Your task to perform on an android device: turn on notifications settings in the gmail app Image 0: 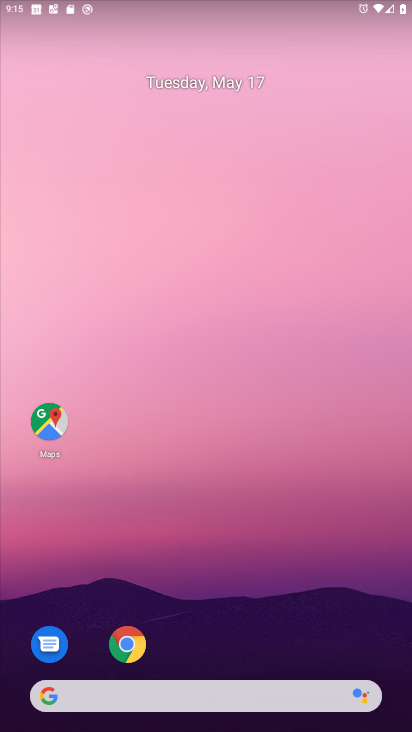
Step 0: press home button
Your task to perform on an android device: turn on notifications settings in the gmail app Image 1: 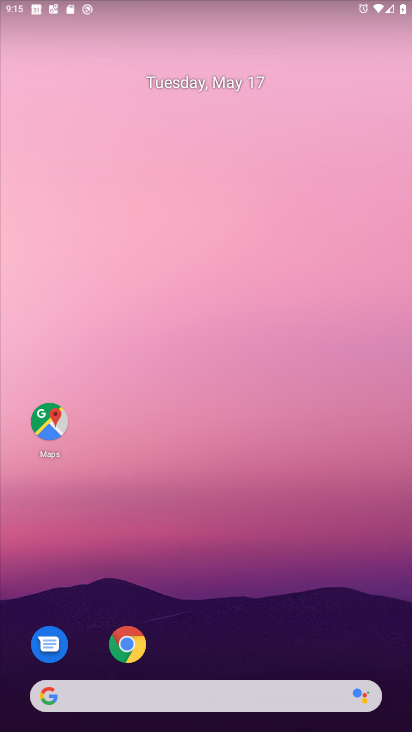
Step 1: drag from (211, 664) to (213, 58)
Your task to perform on an android device: turn on notifications settings in the gmail app Image 2: 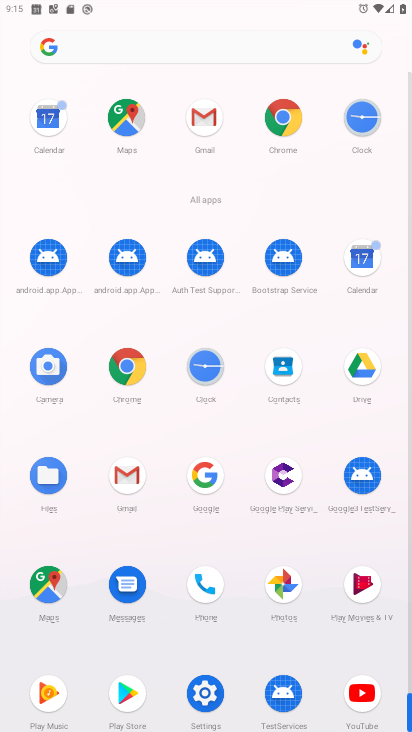
Step 2: click (128, 473)
Your task to perform on an android device: turn on notifications settings in the gmail app Image 3: 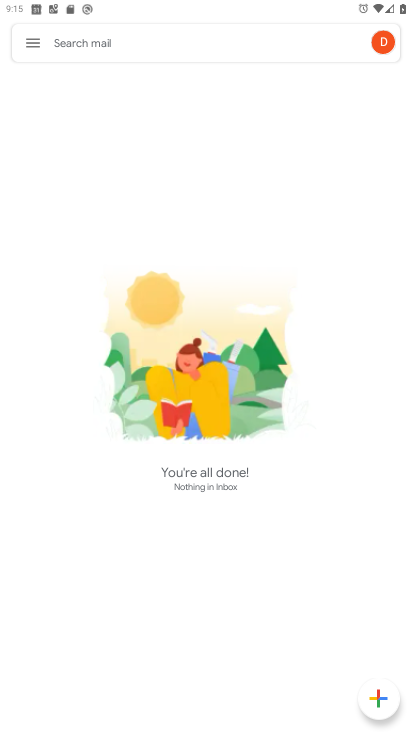
Step 3: click (32, 45)
Your task to perform on an android device: turn on notifications settings in the gmail app Image 4: 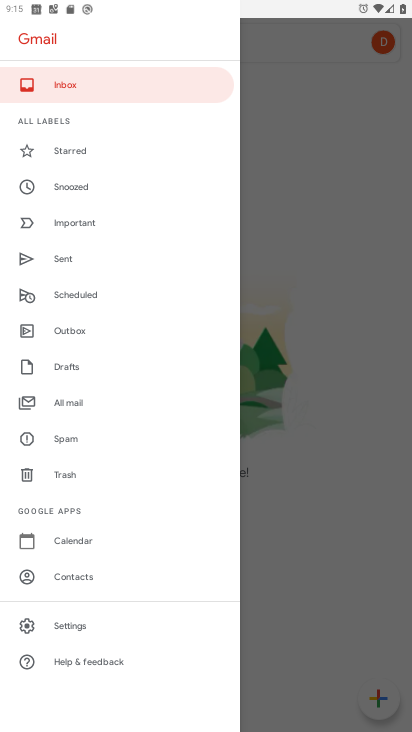
Step 4: click (82, 617)
Your task to perform on an android device: turn on notifications settings in the gmail app Image 5: 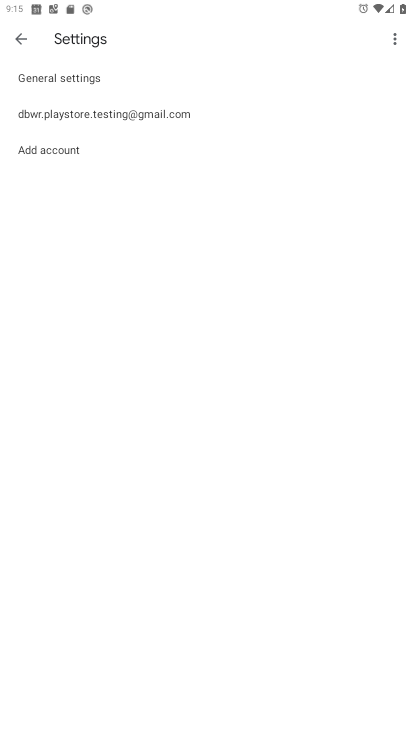
Step 5: click (108, 77)
Your task to perform on an android device: turn on notifications settings in the gmail app Image 6: 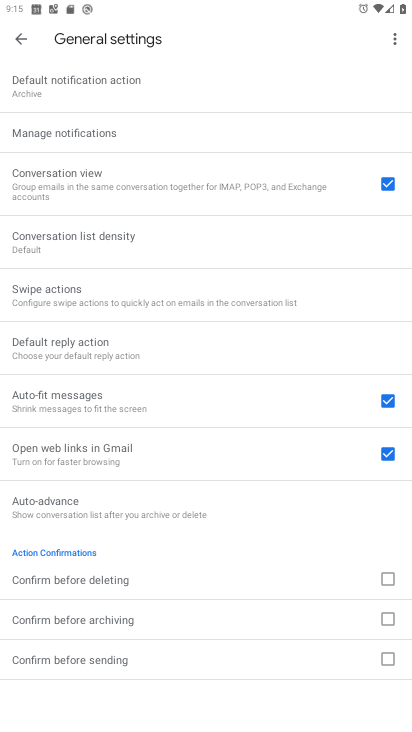
Step 6: click (128, 126)
Your task to perform on an android device: turn on notifications settings in the gmail app Image 7: 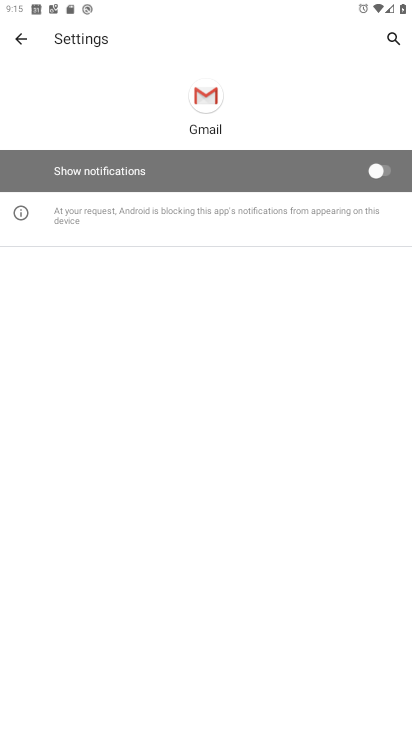
Step 7: click (380, 167)
Your task to perform on an android device: turn on notifications settings in the gmail app Image 8: 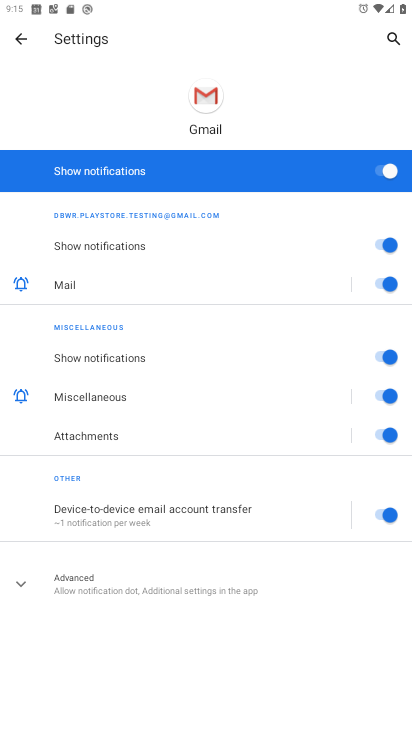
Step 8: task complete